Your task to perform on an android device: turn on translation in the chrome app Image 0: 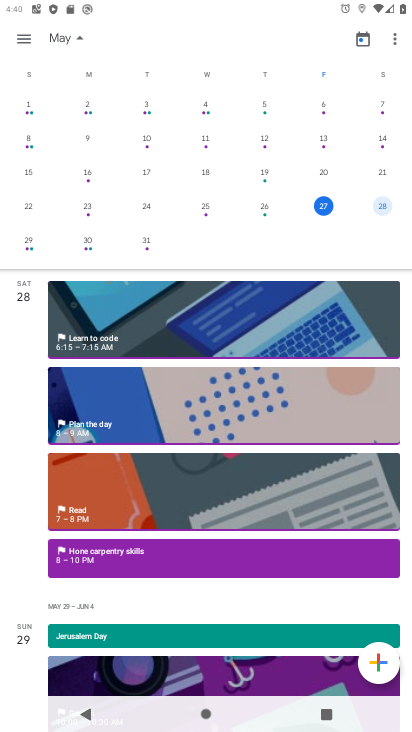
Step 0: press home button
Your task to perform on an android device: turn on translation in the chrome app Image 1: 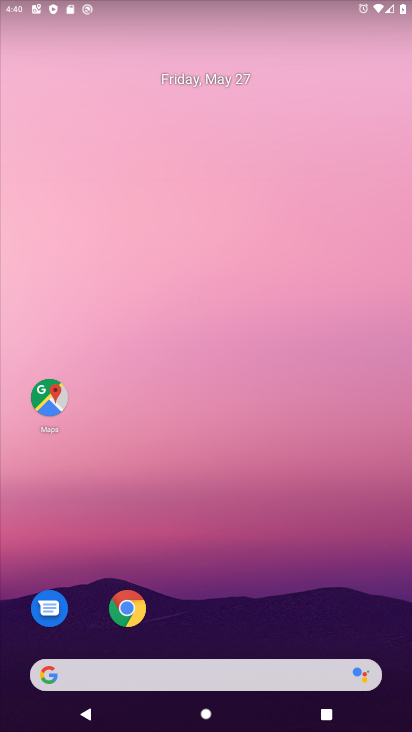
Step 1: click (139, 607)
Your task to perform on an android device: turn on translation in the chrome app Image 2: 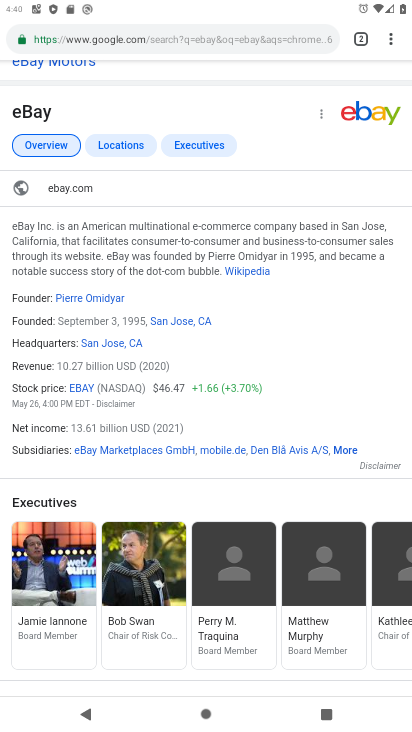
Step 2: click (390, 39)
Your task to perform on an android device: turn on translation in the chrome app Image 3: 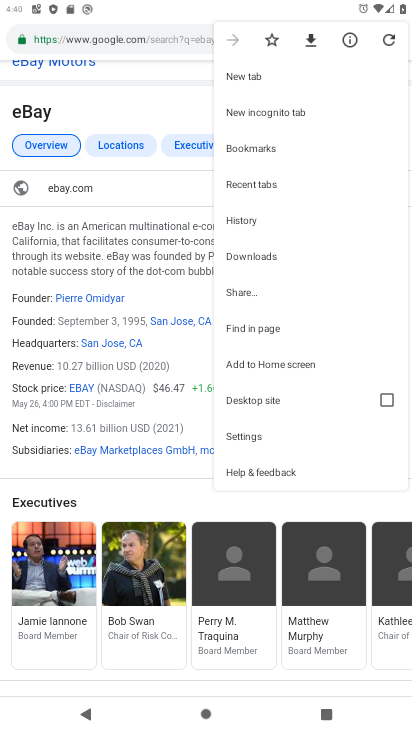
Step 3: click (240, 438)
Your task to perform on an android device: turn on translation in the chrome app Image 4: 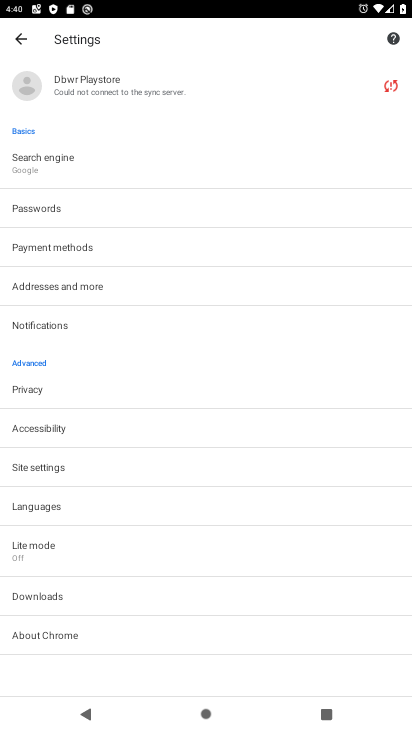
Step 4: drag from (53, 626) to (75, 387)
Your task to perform on an android device: turn on translation in the chrome app Image 5: 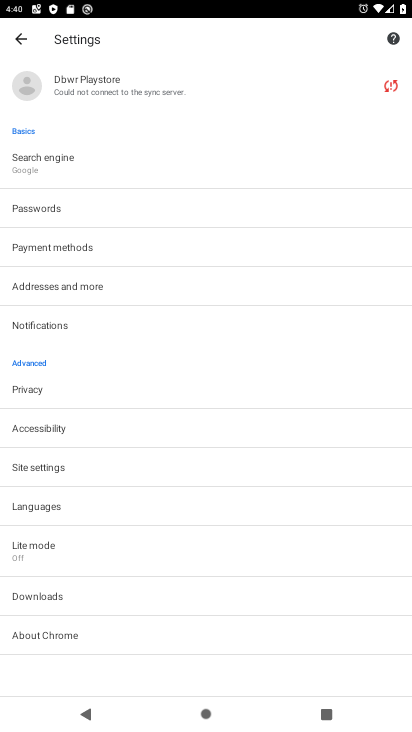
Step 5: click (41, 470)
Your task to perform on an android device: turn on translation in the chrome app Image 6: 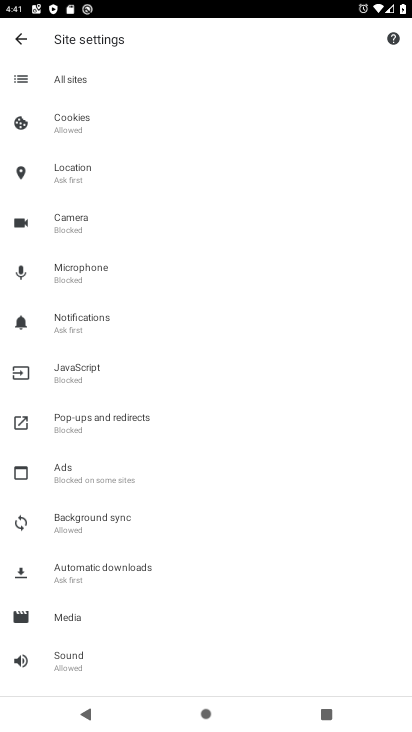
Step 6: click (17, 41)
Your task to perform on an android device: turn on translation in the chrome app Image 7: 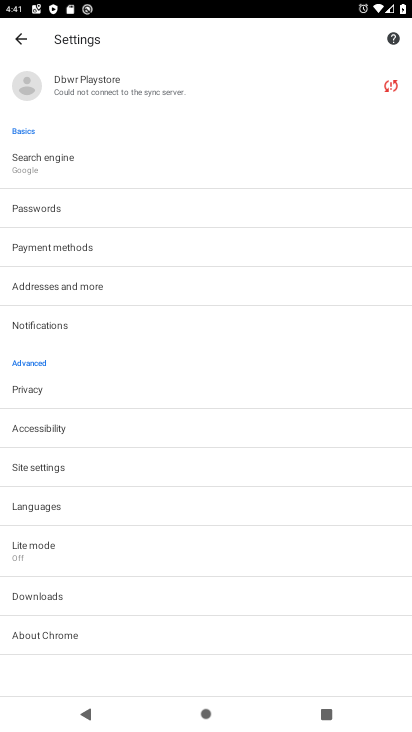
Step 7: click (33, 513)
Your task to perform on an android device: turn on translation in the chrome app Image 8: 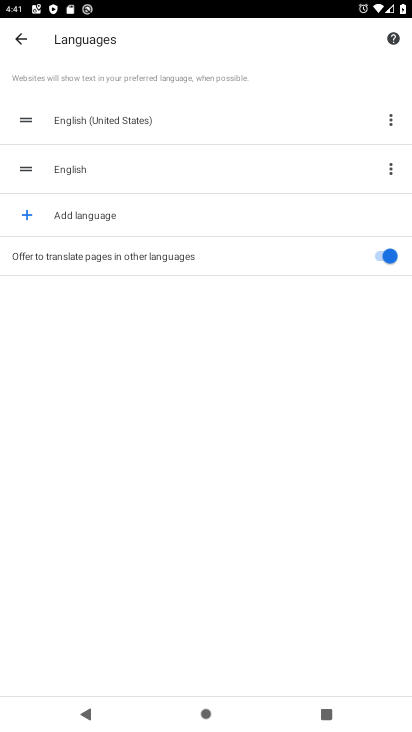
Step 8: task complete